Your task to perform on an android device: Find coffee shops on Maps Image 0: 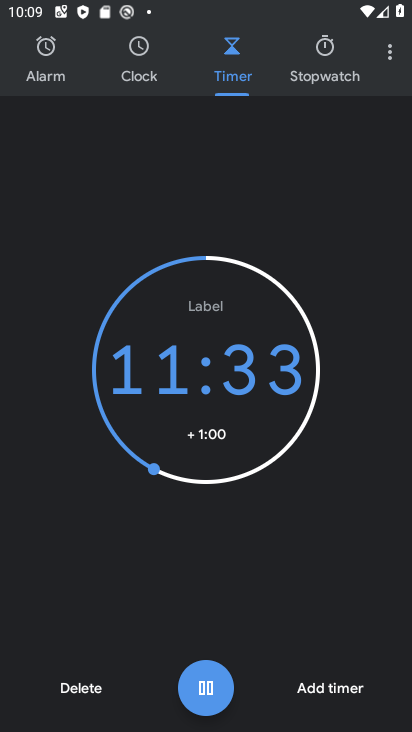
Step 0: press home button
Your task to perform on an android device: Find coffee shops on Maps Image 1: 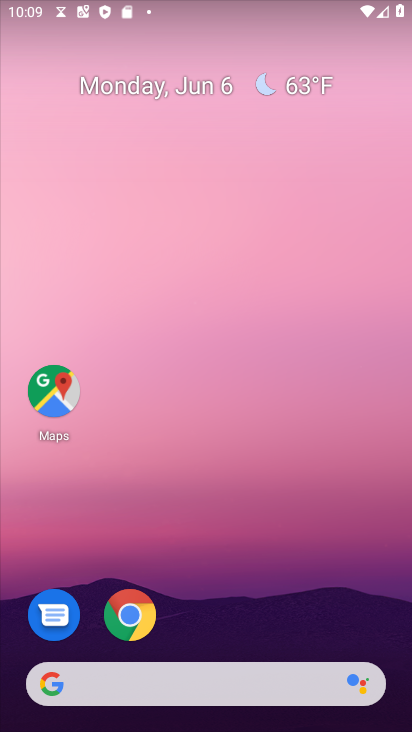
Step 1: click (54, 389)
Your task to perform on an android device: Find coffee shops on Maps Image 2: 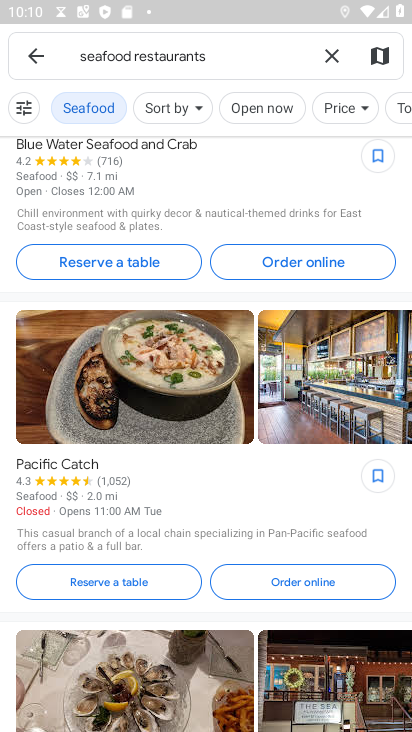
Step 2: click (327, 51)
Your task to perform on an android device: Find coffee shops on Maps Image 3: 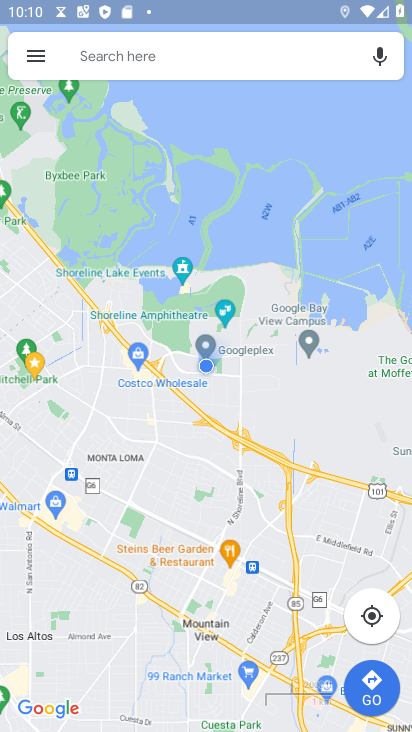
Step 3: click (143, 58)
Your task to perform on an android device: Find coffee shops on Maps Image 4: 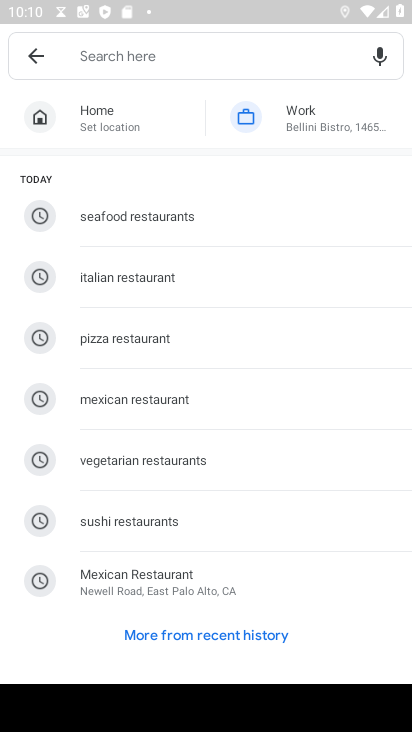
Step 4: type "coffee"
Your task to perform on an android device: Find coffee shops on Maps Image 5: 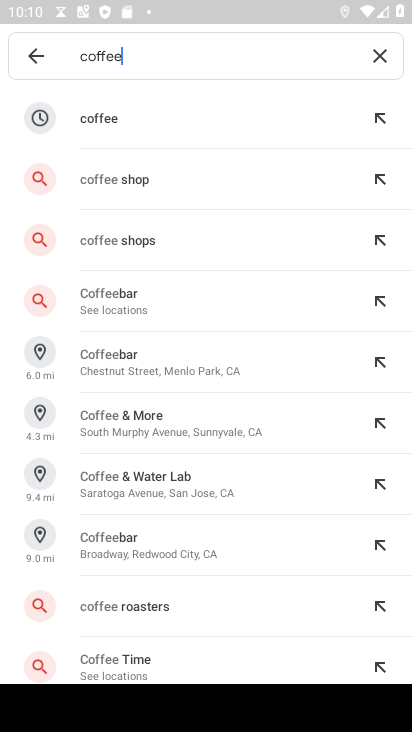
Step 5: click (133, 121)
Your task to perform on an android device: Find coffee shops on Maps Image 6: 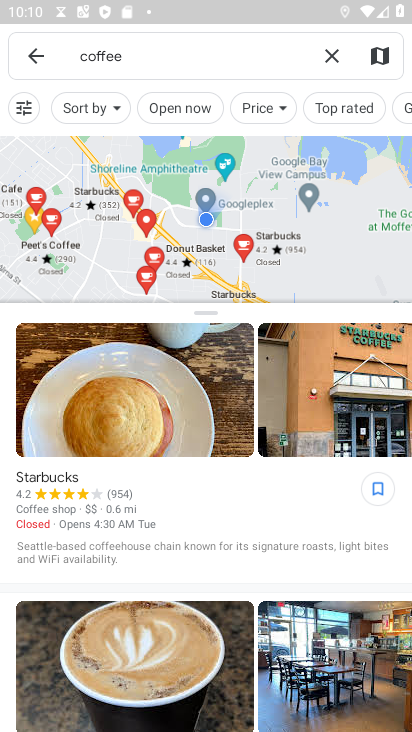
Step 6: task complete